Your task to perform on an android device: What's on my calendar today? Image 0: 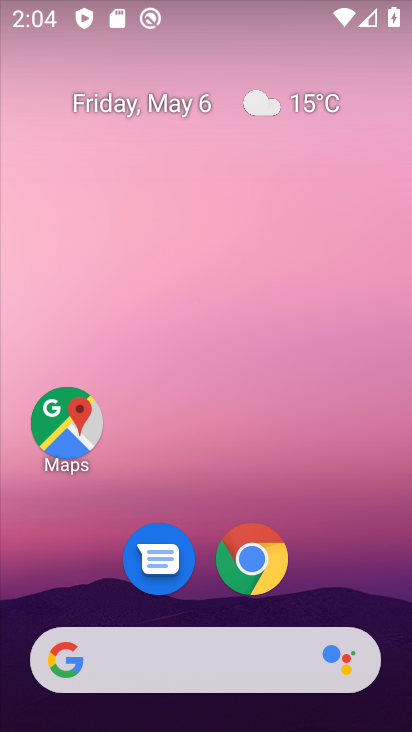
Step 0: drag from (336, 560) to (323, 280)
Your task to perform on an android device: What's on my calendar today? Image 1: 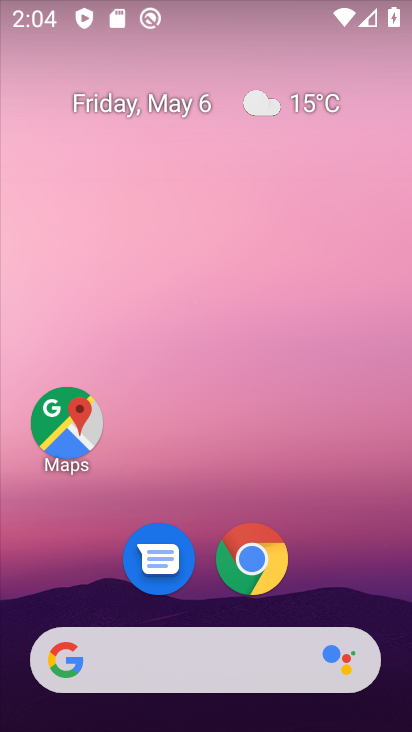
Step 1: drag from (351, 561) to (310, 154)
Your task to perform on an android device: What's on my calendar today? Image 2: 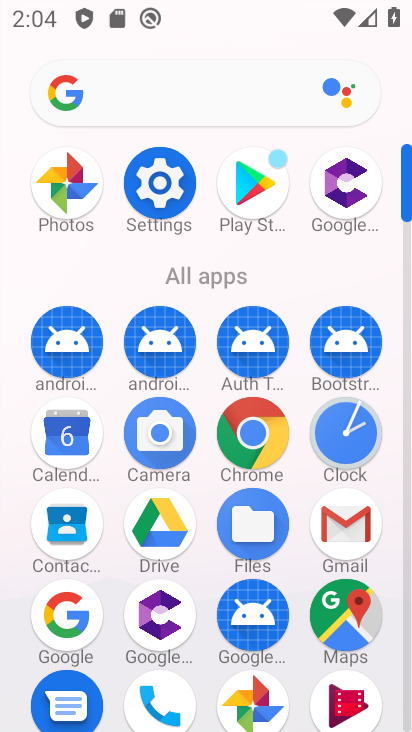
Step 2: click (140, 196)
Your task to perform on an android device: What's on my calendar today? Image 3: 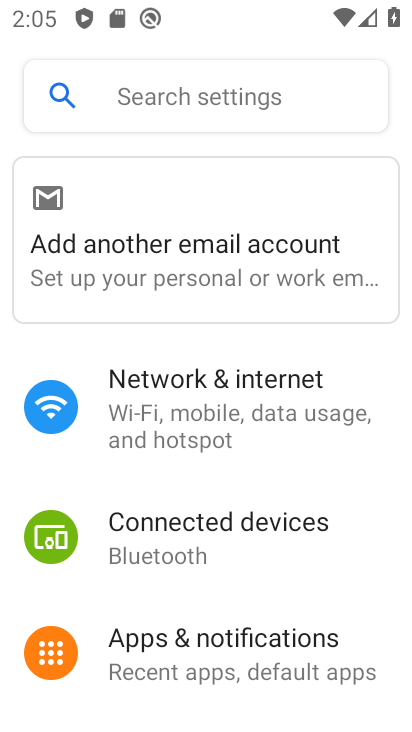
Step 3: press home button
Your task to perform on an android device: What's on my calendar today? Image 4: 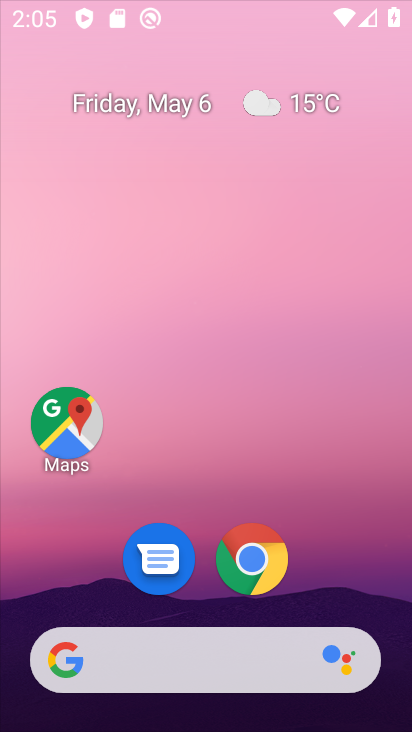
Step 4: click (349, 562)
Your task to perform on an android device: What's on my calendar today? Image 5: 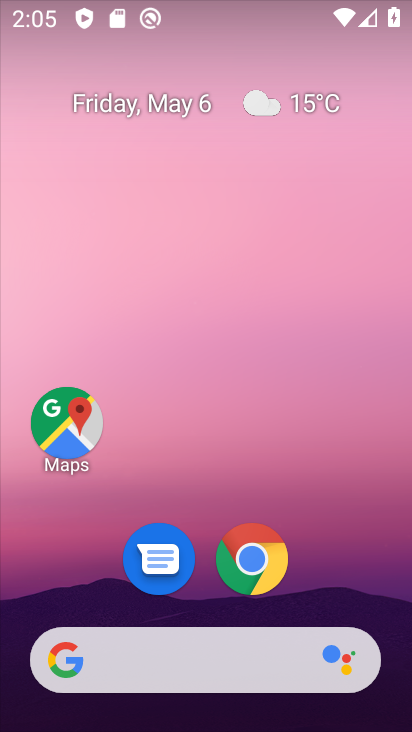
Step 5: drag from (349, 562) to (319, 138)
Your task to perform on an android device: What's on my calendar today? Image 6: 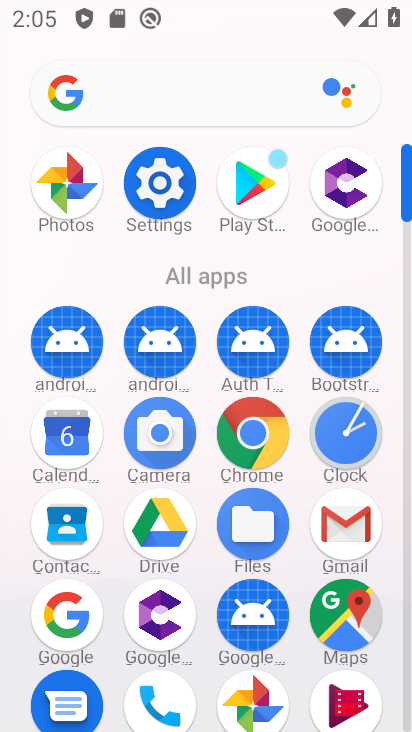
Step 6: click (83, 464)
Your task to perform on an android device: What's on my calendar today? Image 7: 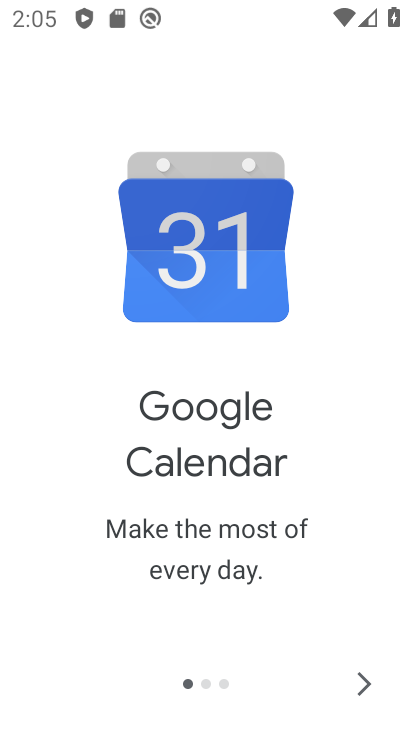
Step 7: click (361, 680)
Your task to perform on an android device: What's on my calendar today? Image 8: 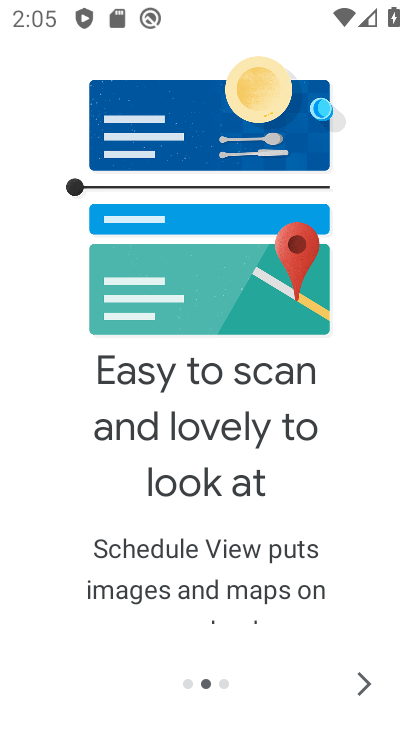
Step 8: click (361, 680)
Your task to perform on an android device: What's on my calendar today? Image 9: 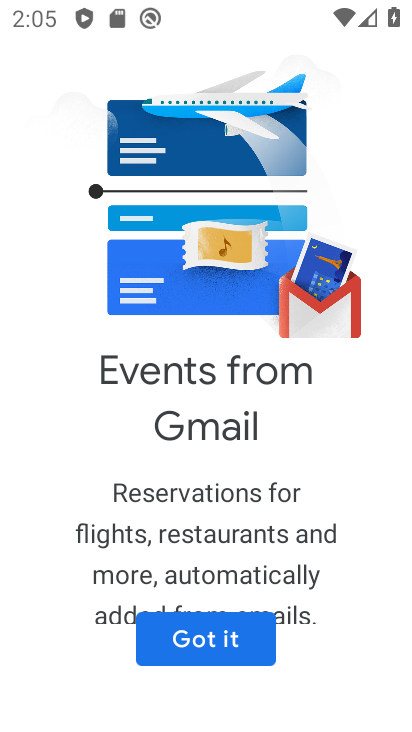
Step 9: click (265, 638)
Your task to perform on an android device: What's on my calendar today? Image 10: 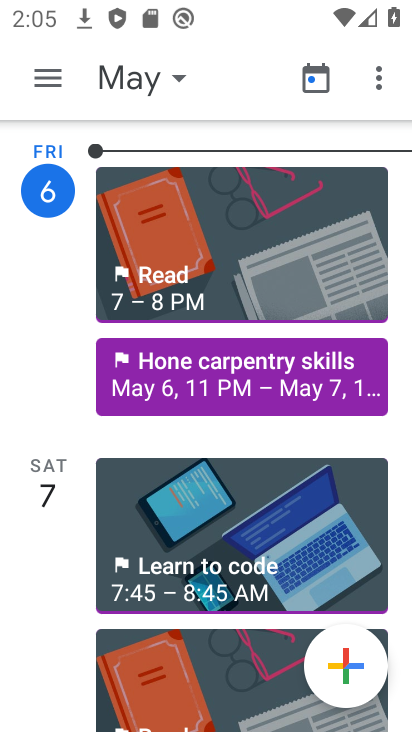
Step 10: task complete